Your task to perform on an android device: What is the news today? Image 0: 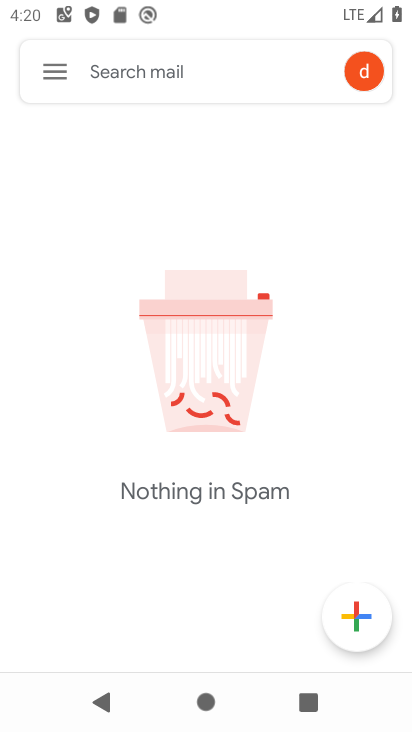
Step 0: press home button
Your task to perform on an android device: What is the news today? Image 1: 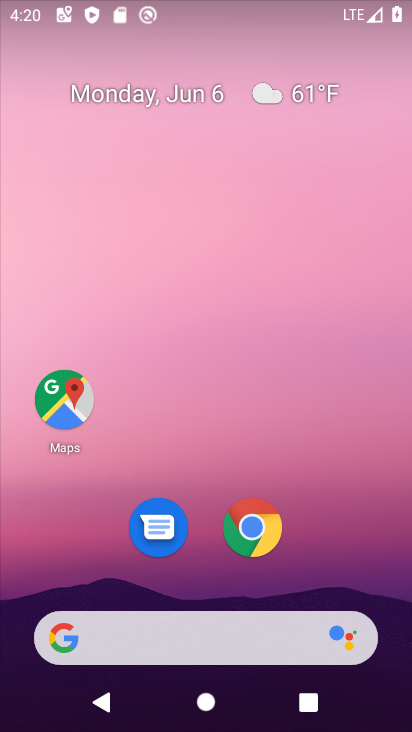
Step 1: click (216, 627)
Your task to perform on an android device: What is the news today? Image 2: 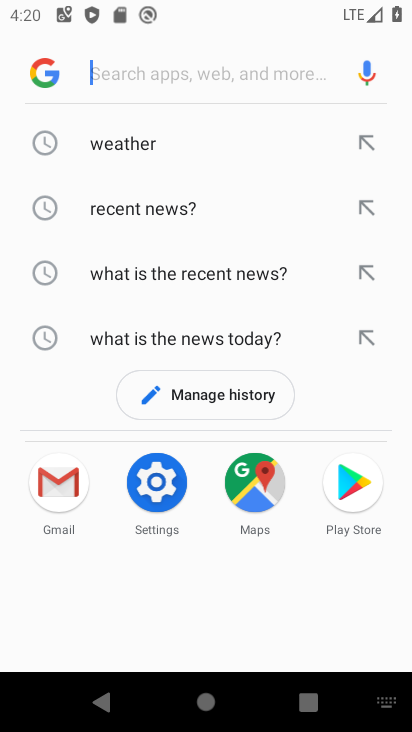
Step 2: click (261, 347)
Your task to perform on an android device: What is the news today? Image 3: 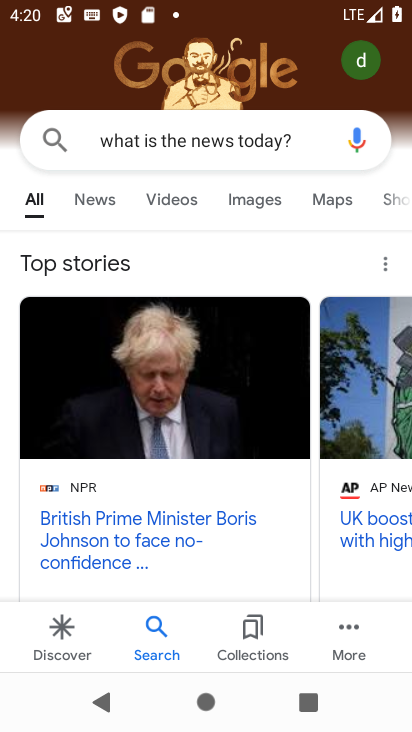
Step 3: task complete